Your task to perform on an android device: Open Android settings Image 0: 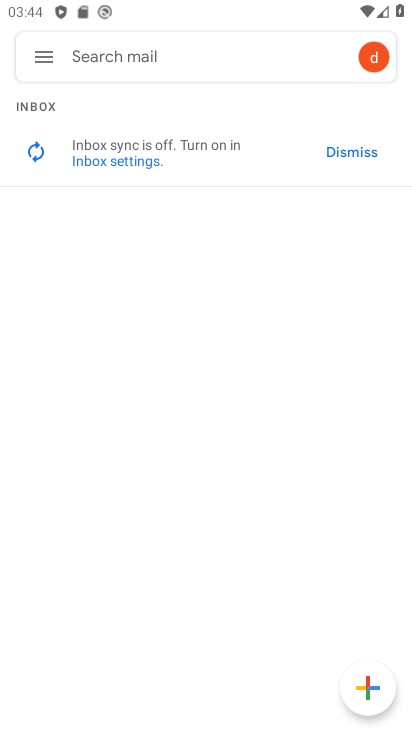
Step 0: press home button
Your task to perform on an android device: Open Android settings Image 1: 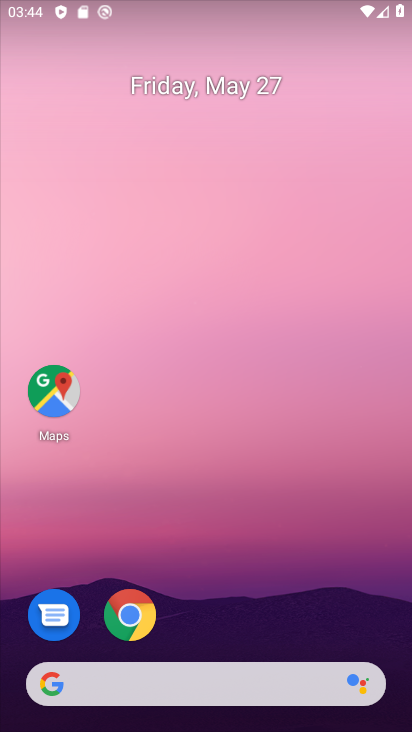
Step 1: drag from (125, 728) to (284, 119)
Your task to perform on an android device: Open Android settings Image 2: 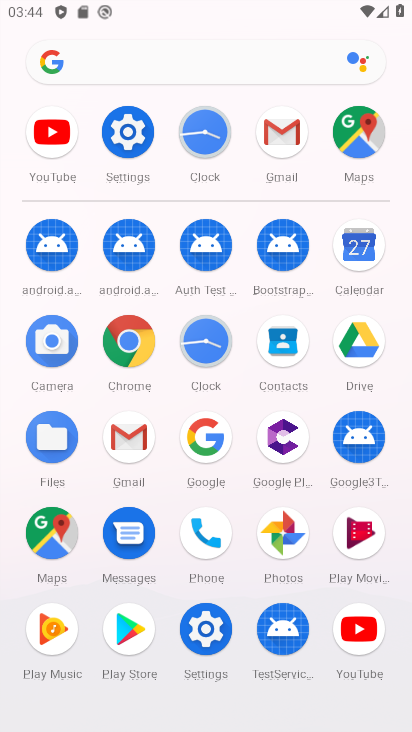
Step 2: click (204, 636)
Your task to perform on an android device: Open Android settings Image 3: 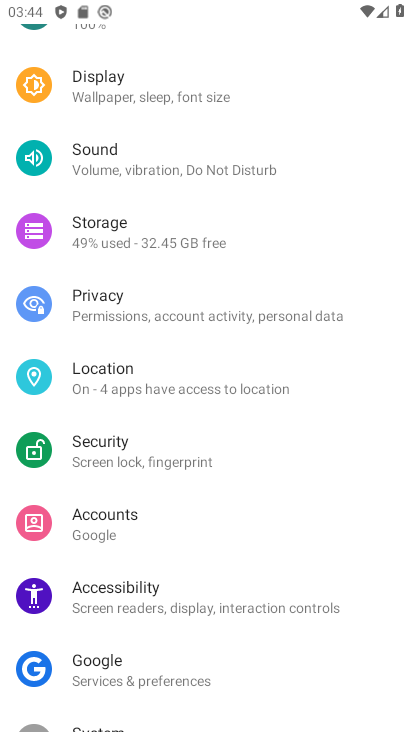
Step 3: task complete